Your task to perform on an android device: turn off airplane mode Image 0: 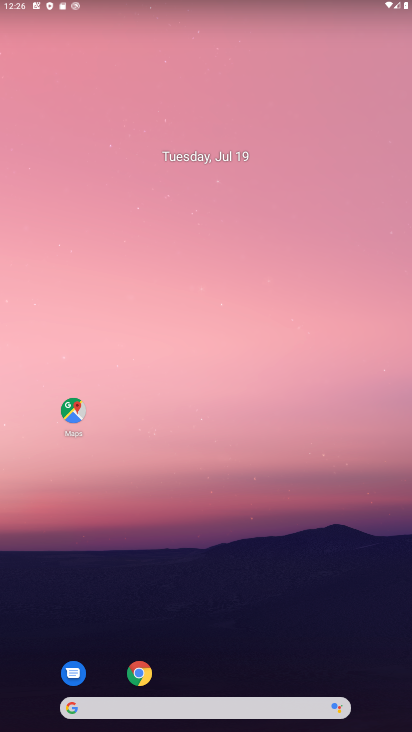
Step 0: drag from (314, 613) to (234, 183)
Your task to perform on an android device: turn off airplane mode Image 1: 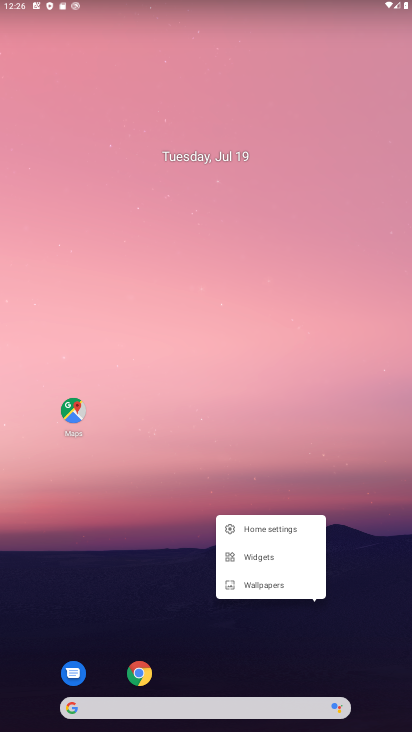
Step 1: click (234, 183)
Your task to perform on an android device: turn off airplane mode Image 2: 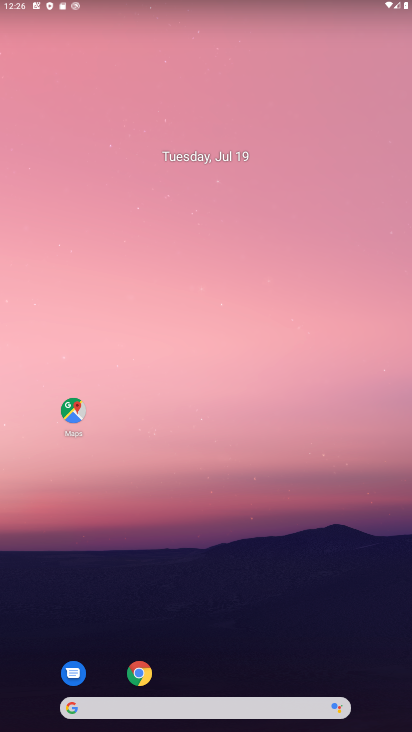
Step 2: drag from (382, 675) to (295, 76)
Your task to perform on an android device: turn off airplane mode Image 3: 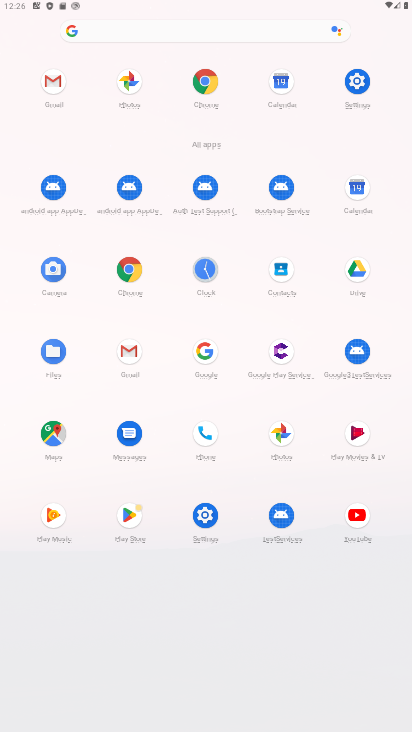
Step 3: click (355, 82)
Your task to perform on an android device: turn off airplane mode Image 4: 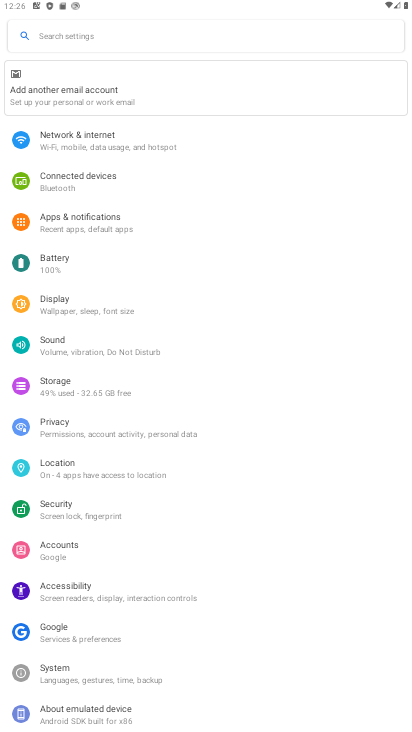
Step 4: click (245, 147)
Your task to perform on an android device: turn off airplane mode Image 5: 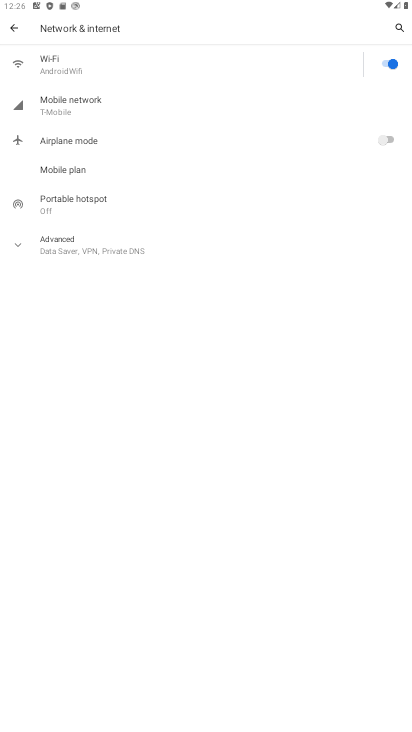
Step 5: task complete